Your task to perform on an android device: open a new tab in the chrome app Image 0: 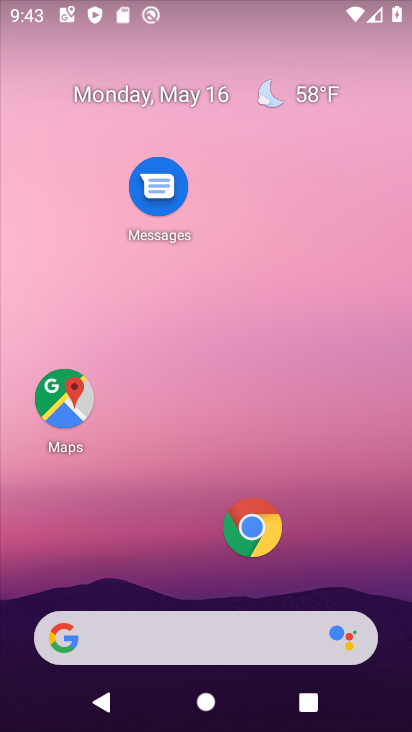
Step 0: click (251, 521)
Your task to perform on an android device: open a new tab in the chrome app Image 1: 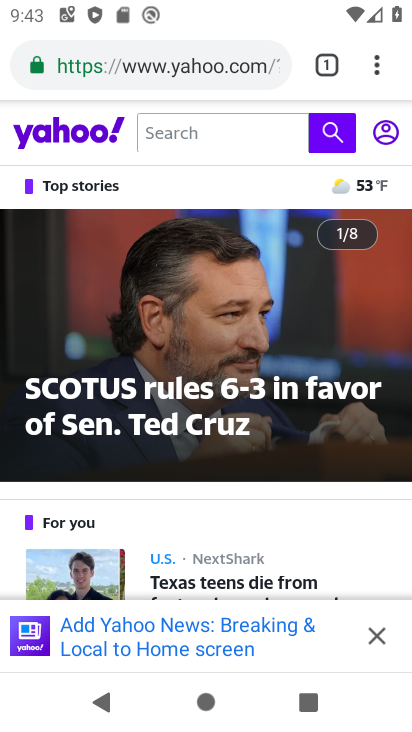
Step 1: click (327, 58)
Your task to perform on an android device: open a new tab in the chrome app Image 2: 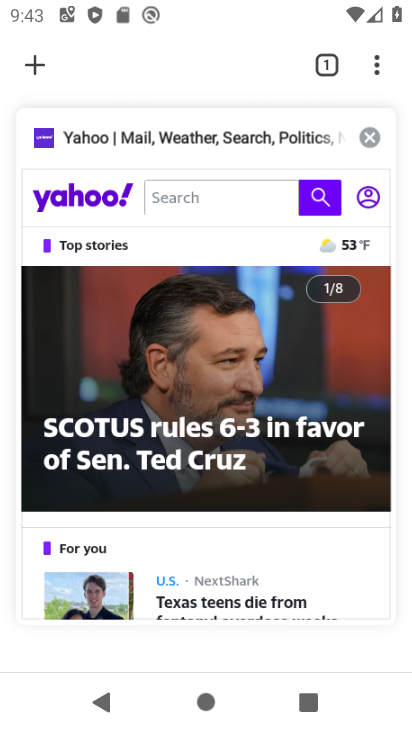
Step 2: click (32, 70)
Your task to perform on an android device: open a new tab in the chrome app Image 3: 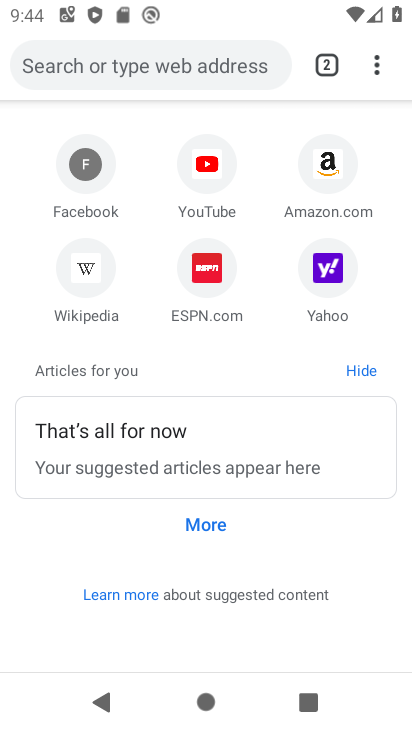
Step 3: task complete